Your task to perform on an android device: Find coffee shops on Maps Image 0: 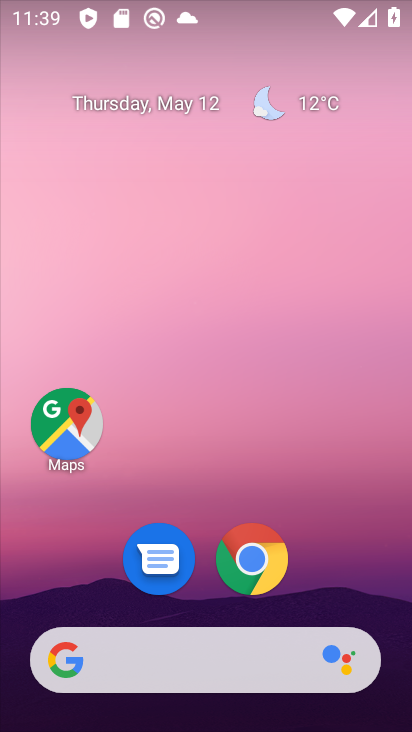
Step 0: click (79, 437)
Your task to perform on an android device: Find coffee shops on Maps Image 1: 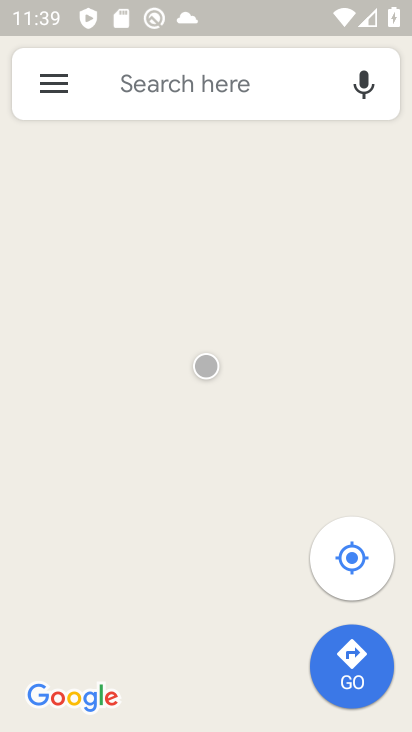
Step 1: click (213, 86)
Your task to perform on an android device: Find coffee shops on Maps Image 2: 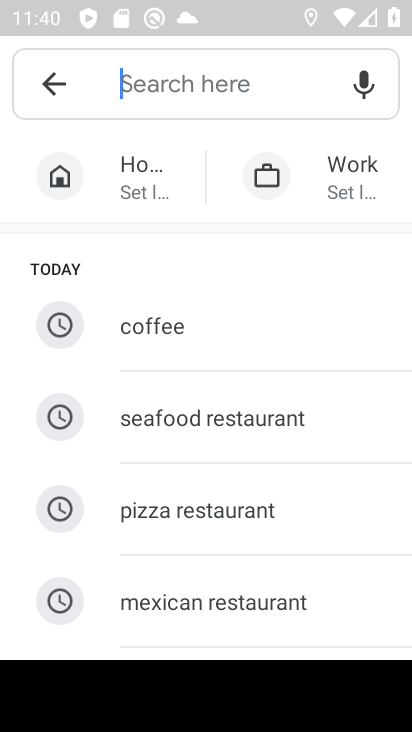
Step 2: type "Coffee shops"
Your task to perform on an android device: Find coffee shops on Maps Image 3: 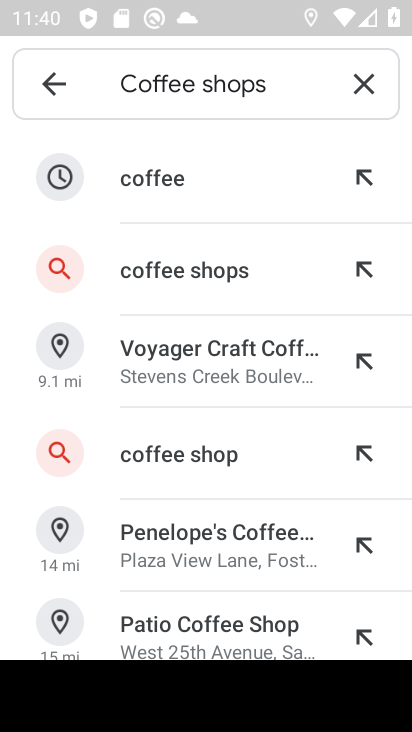
Step 3: click (245, 276)
Your task to perform on an android device: Find coffee shops on Maps Image 4: 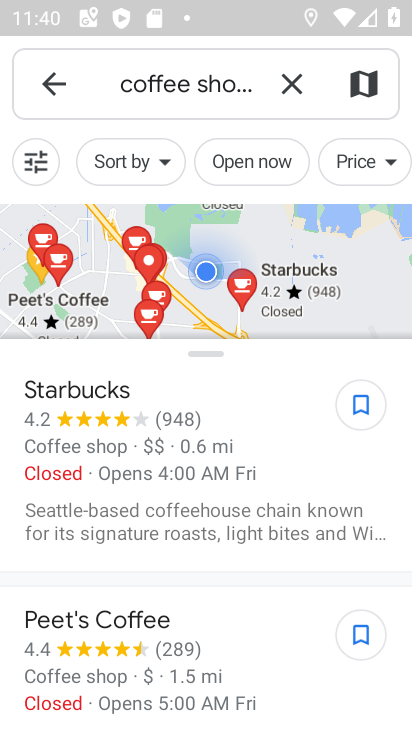
Step 4: task complete